Your task to perform on an android device: Search for a cheap bike on Walmart Image 0: 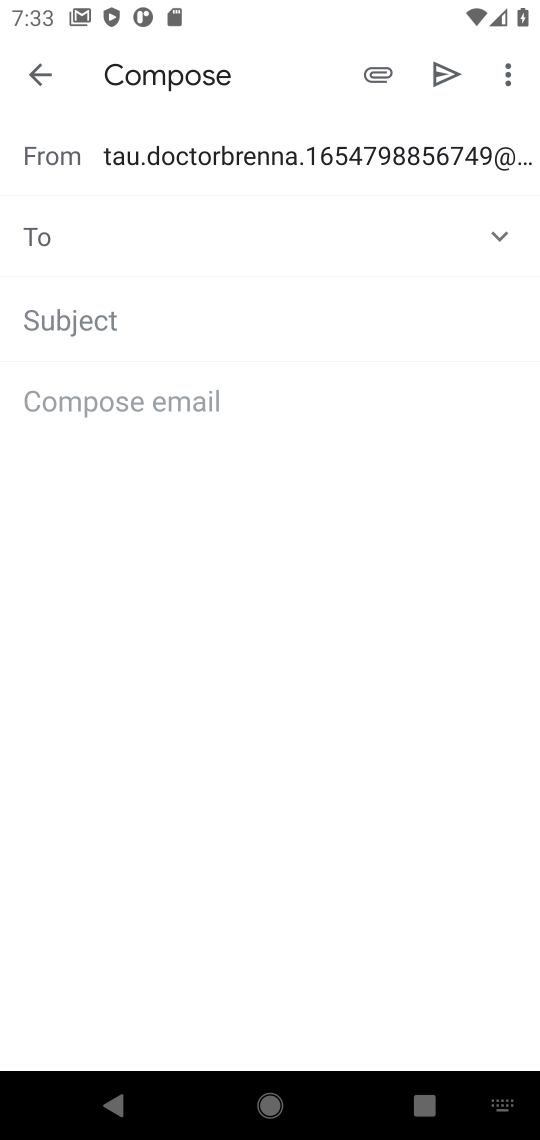
Step 0: press home button
Your task to perform on an android device: Search for a cheap bike on Walmart Image 1: 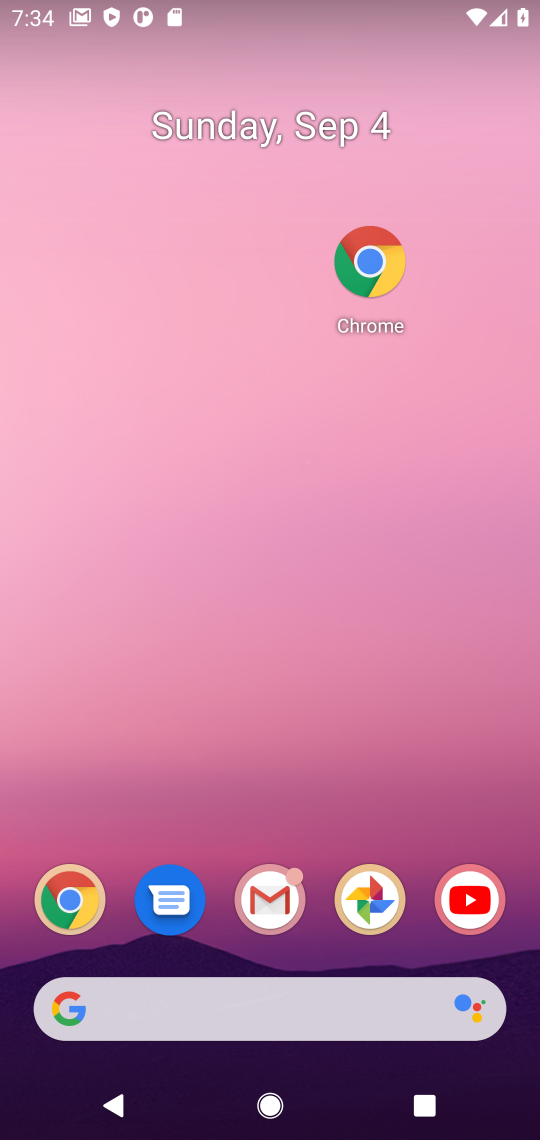
Step 1: click (359, 267)
Your task to perform on an android device: Search for a cheap bike on Walmart Image 2: 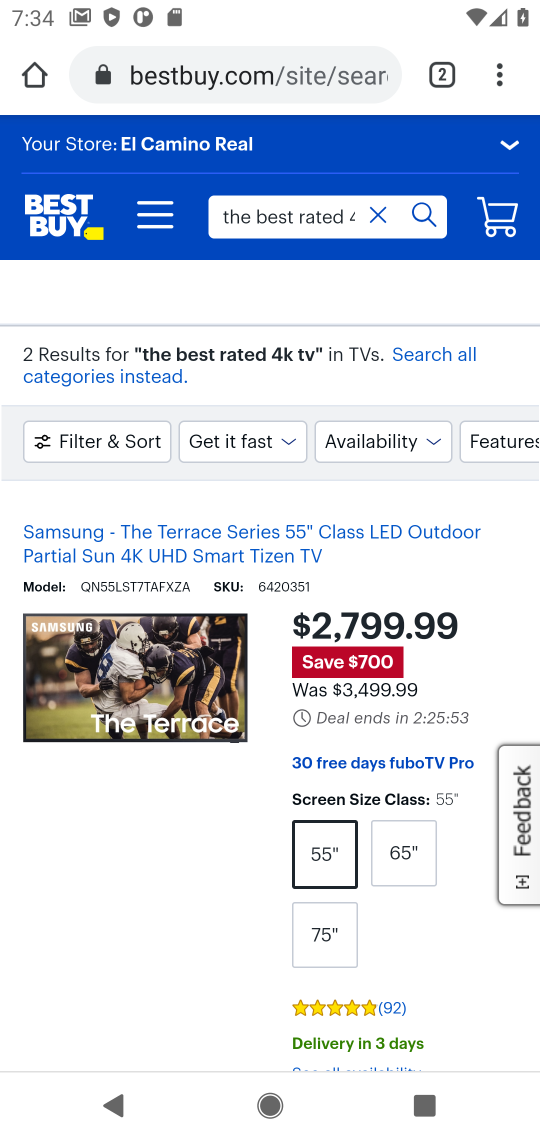
Step 2: click (450, 79)
Your task to perform on an android device: Search for a cheap bike on Walmart Image 3: 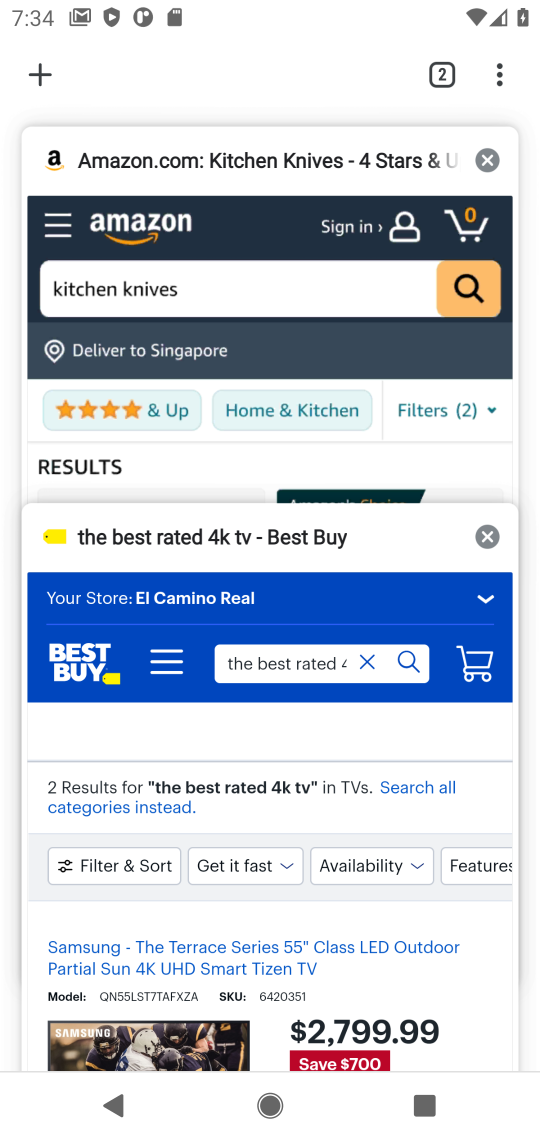
Step 3: click (47, 74)
Your task to perform on an android device: Search for a cheap bike on Walmart Image 4: 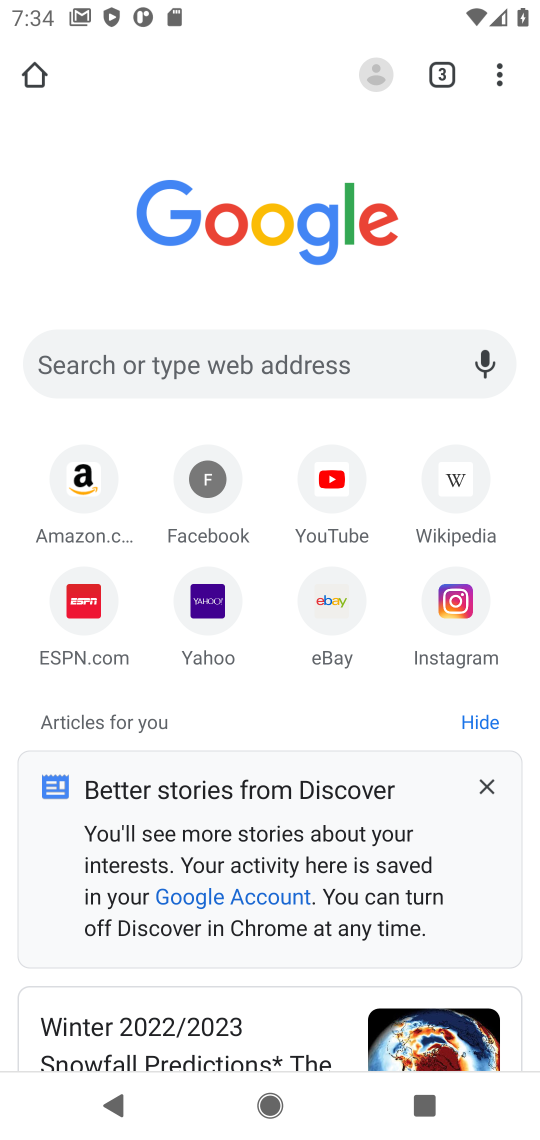
Step 4: click (240, 374)
Your task to perform on an android device: Search for a cheap bike on Walmart Image 5: 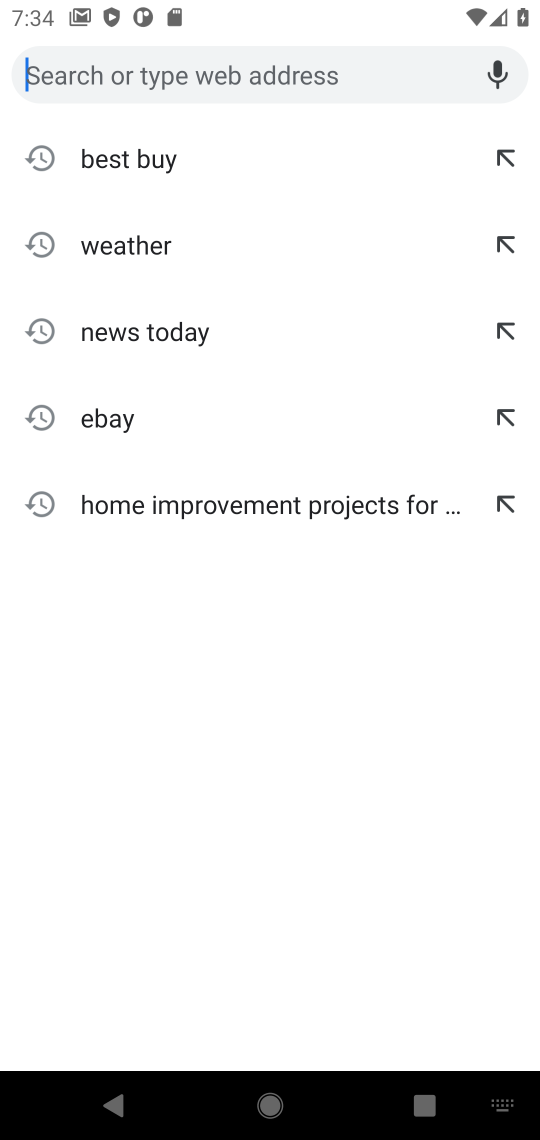
Step 5: type "walmart"
Your task to perform on an android device: Search for a cheap bike on Walmart Image 6: 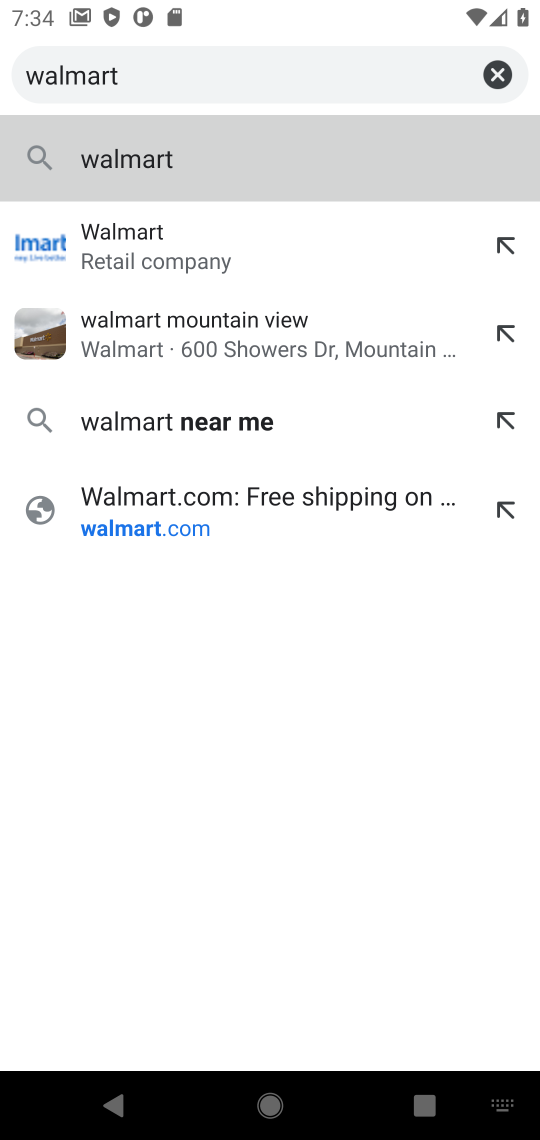
Step 6: click (71, 159)
Your task to perform on an android device: Search for a cheap bike on Walmart Image 7: 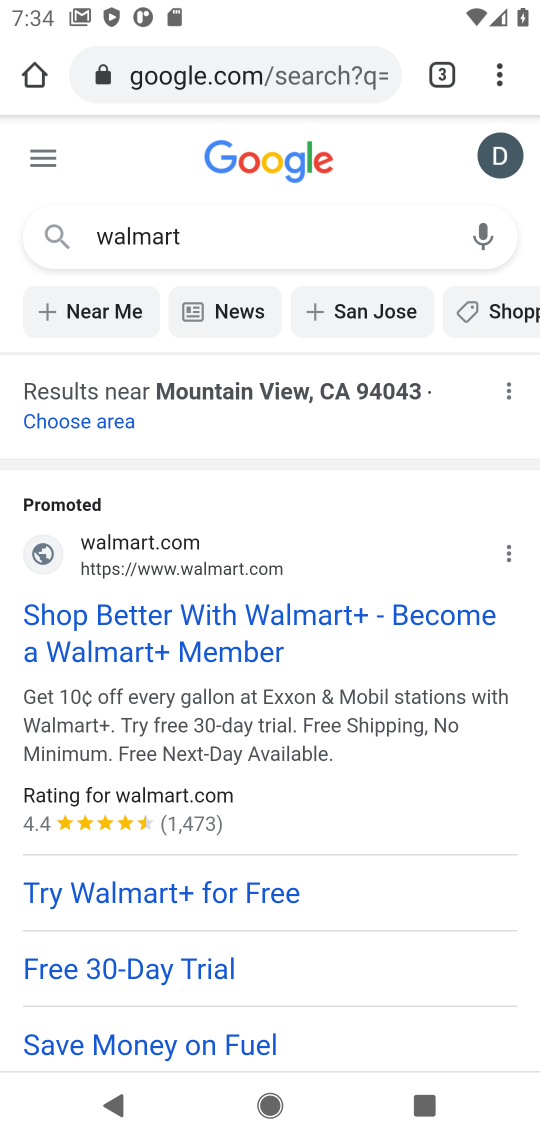
Step 7: click (140, 655)
Your task to perform on an android device: Search for a cheap bike on Walmart Image 8: 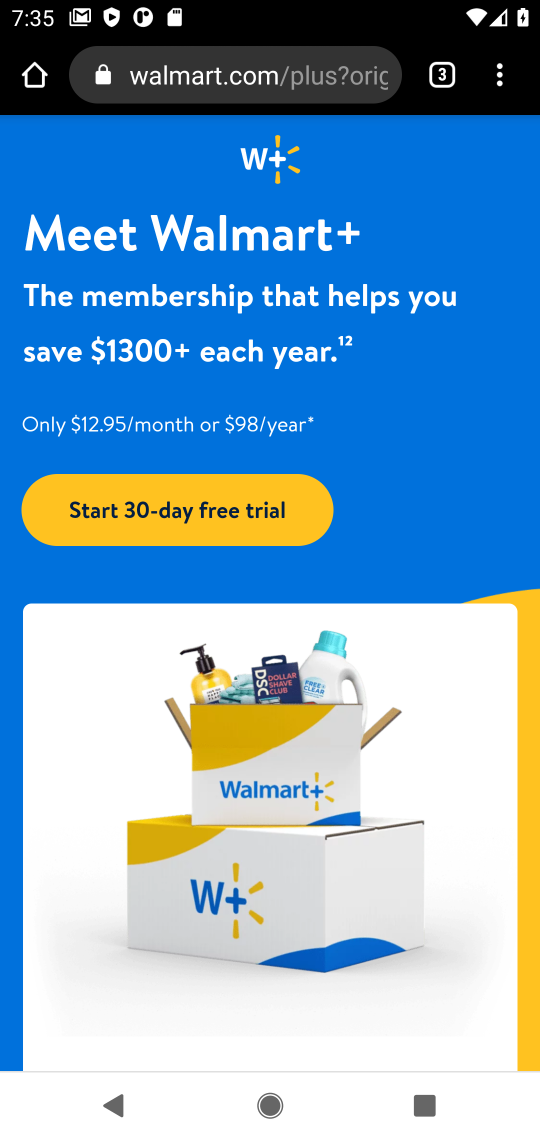
Step 8: click (186, 499)
Your task to perform on an android device: Search for a cheap bike on Walmart Image 9: 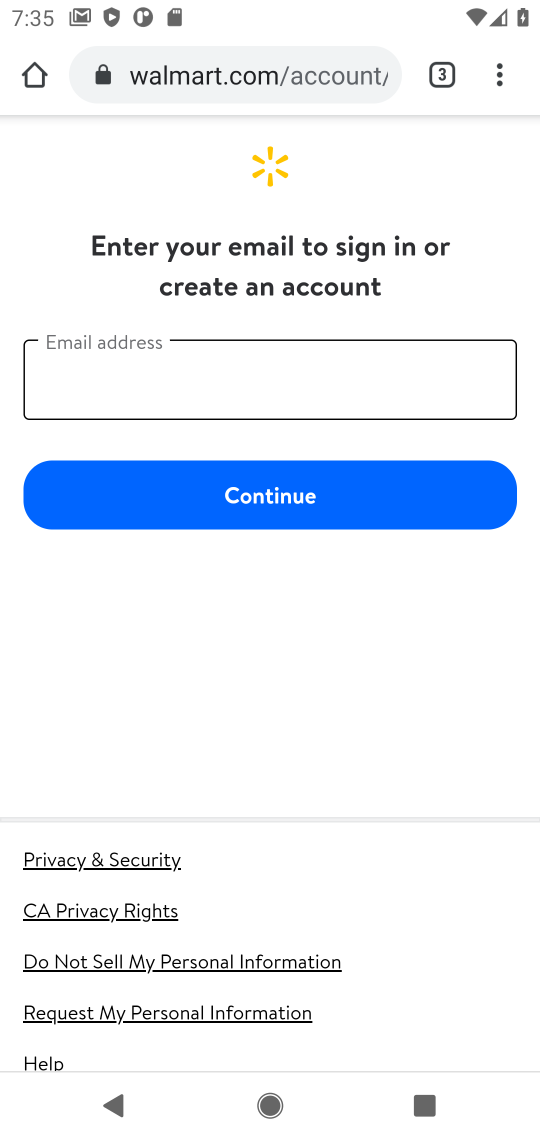
Step 9: press back button
Your task to perform on an android device: Search for a cheap bike on Walmart Image 10: 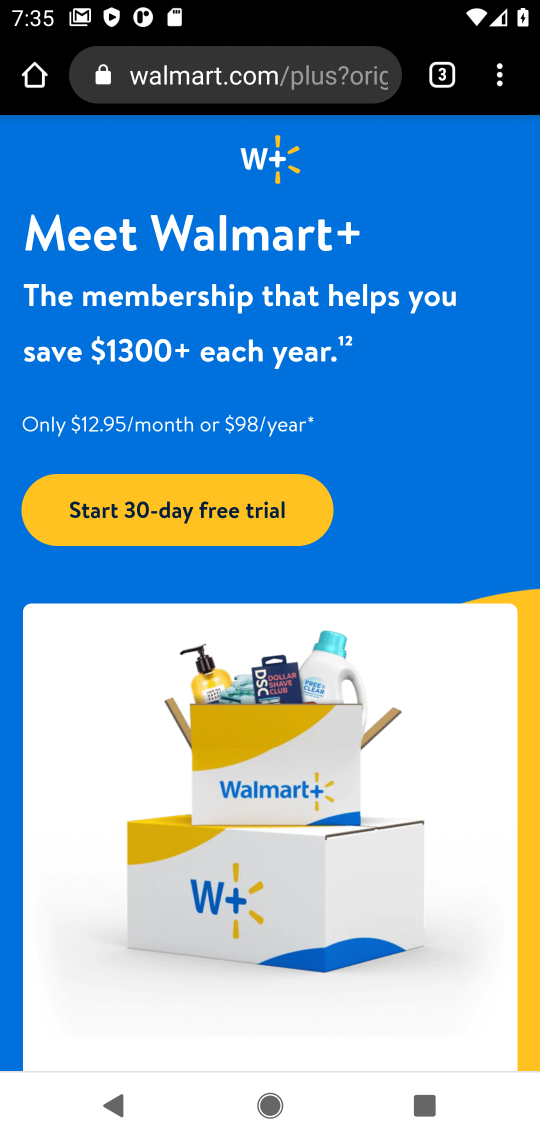
Step 10: press back button
Your task to perform on an android device: Search for a cheap bike on Walmart Image 11: 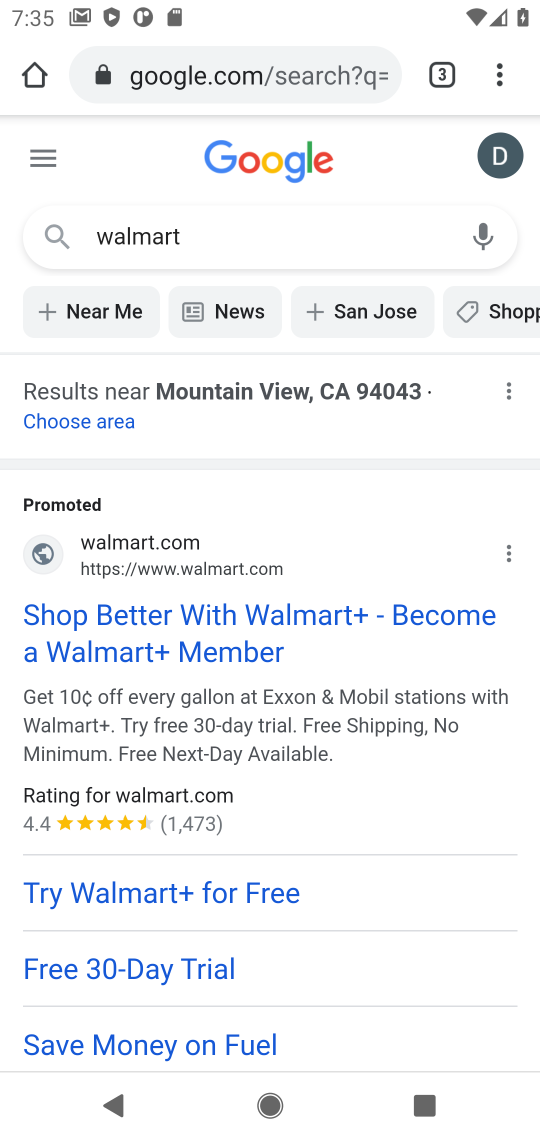
Step 11: click (257, 621)
Your task to perform on an android device: Search for a cheap bike on Walmart Image 12: 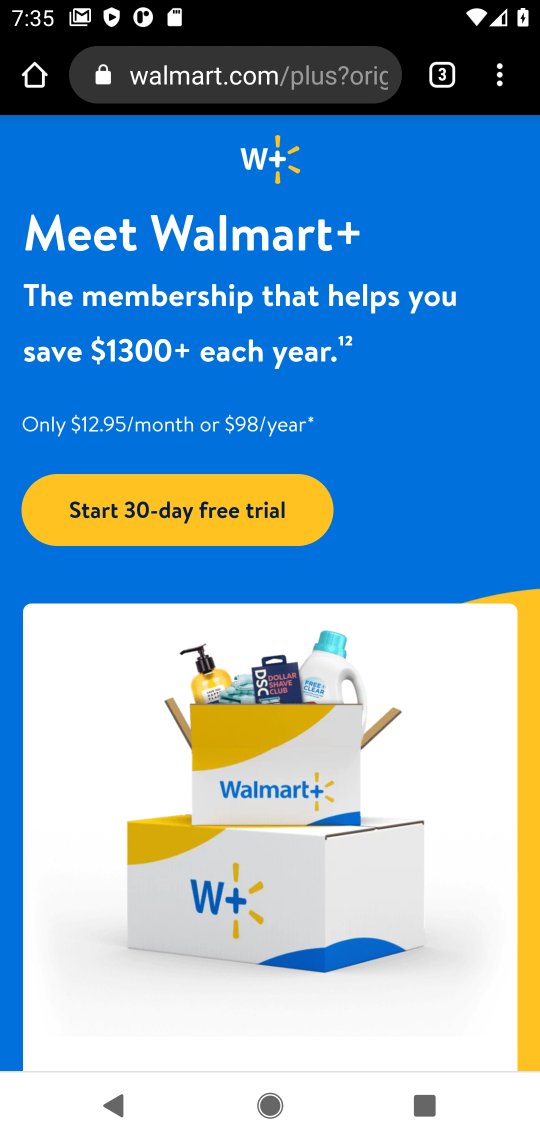
Step 12: drag from (257, 621) to (276, 67)
Your task to perform on an android device: Search for a cheap bike on Walmart Image 13: 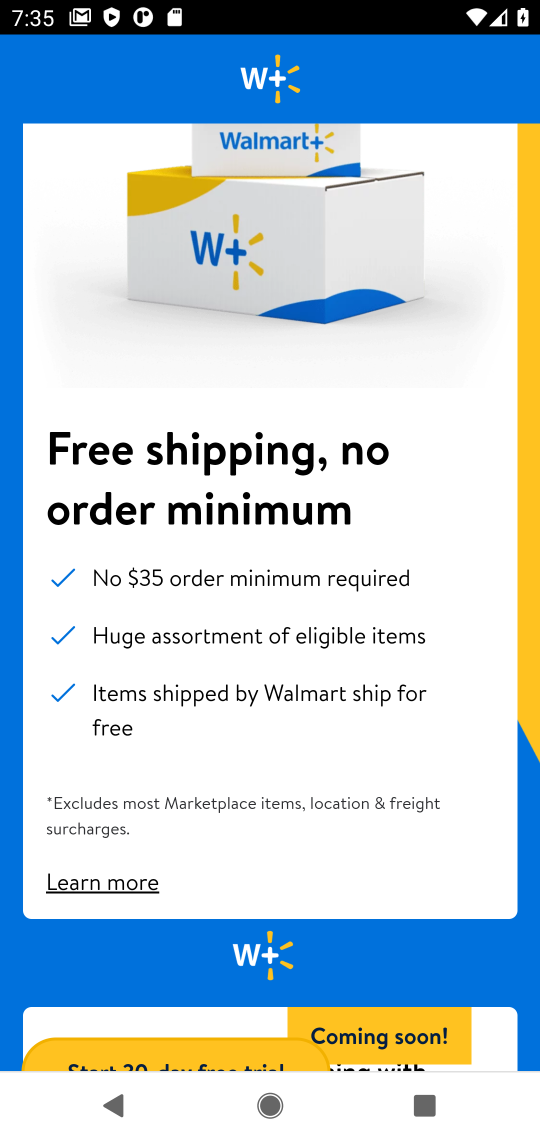
Step 13: drag from (382, 851) to (276, 243)
Your task to perform on an android device: Search for a cheap bike on Walmart Image 14: 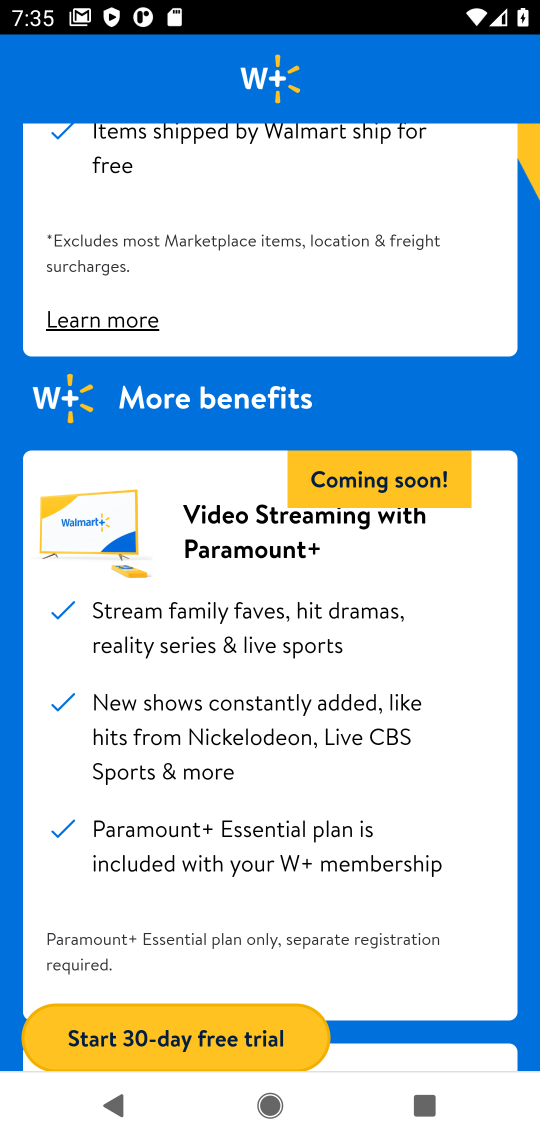
Step 14: click (104, 1029)
Your task to perform on an android device: Search for a cheap bike on Walmart Image 15: 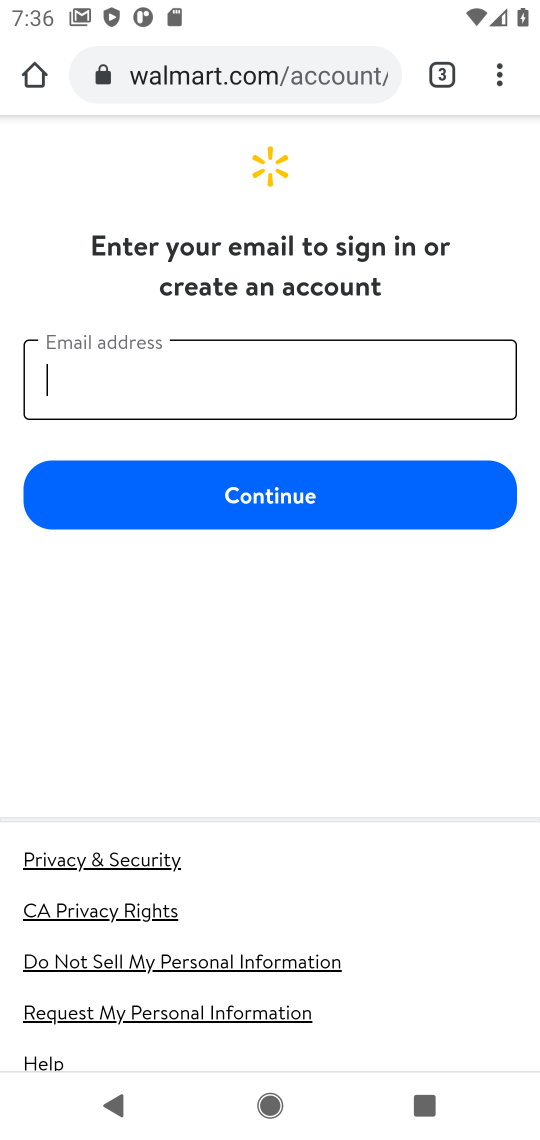
Step 15: task complete